Your task to perform on an android device: Open location settings Image 0: 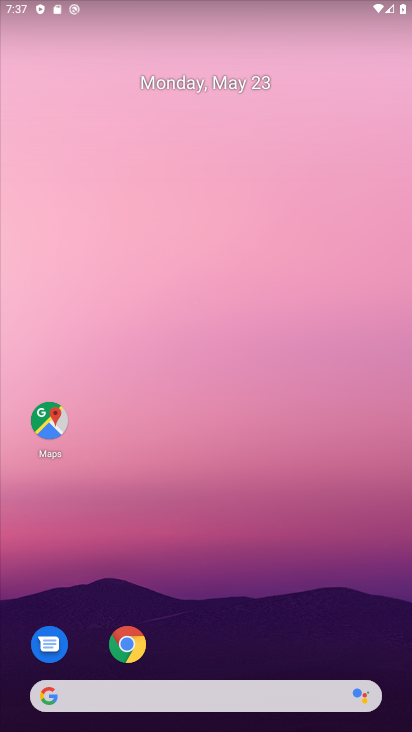
Step 0: drag from (37, 604) to (282, 115)
Your task to perform on an android device: Open location settings Image 1: 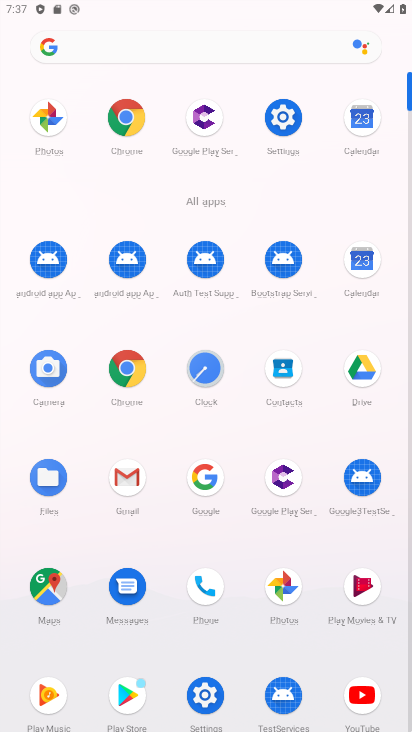
Step 1: click (285, 109)
Your task to perform on an android device: Open location settings Image 2: 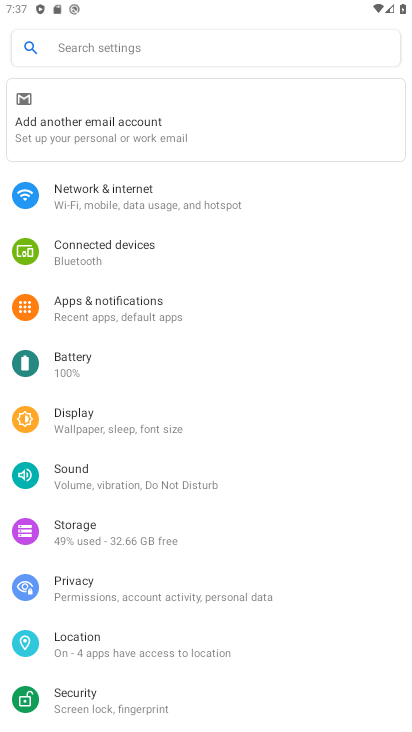
Step 2: click (109, 644)
Your task to perform on an android device: Open location settings Image 3: 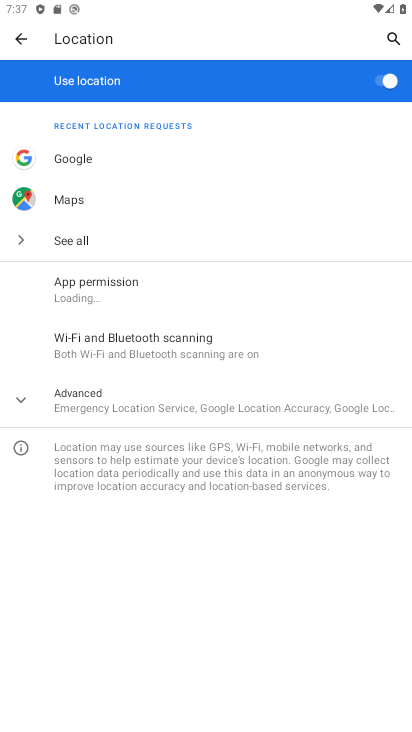
Step 3: task complete